Your task to perform on an android device: Open eBay Image 0: 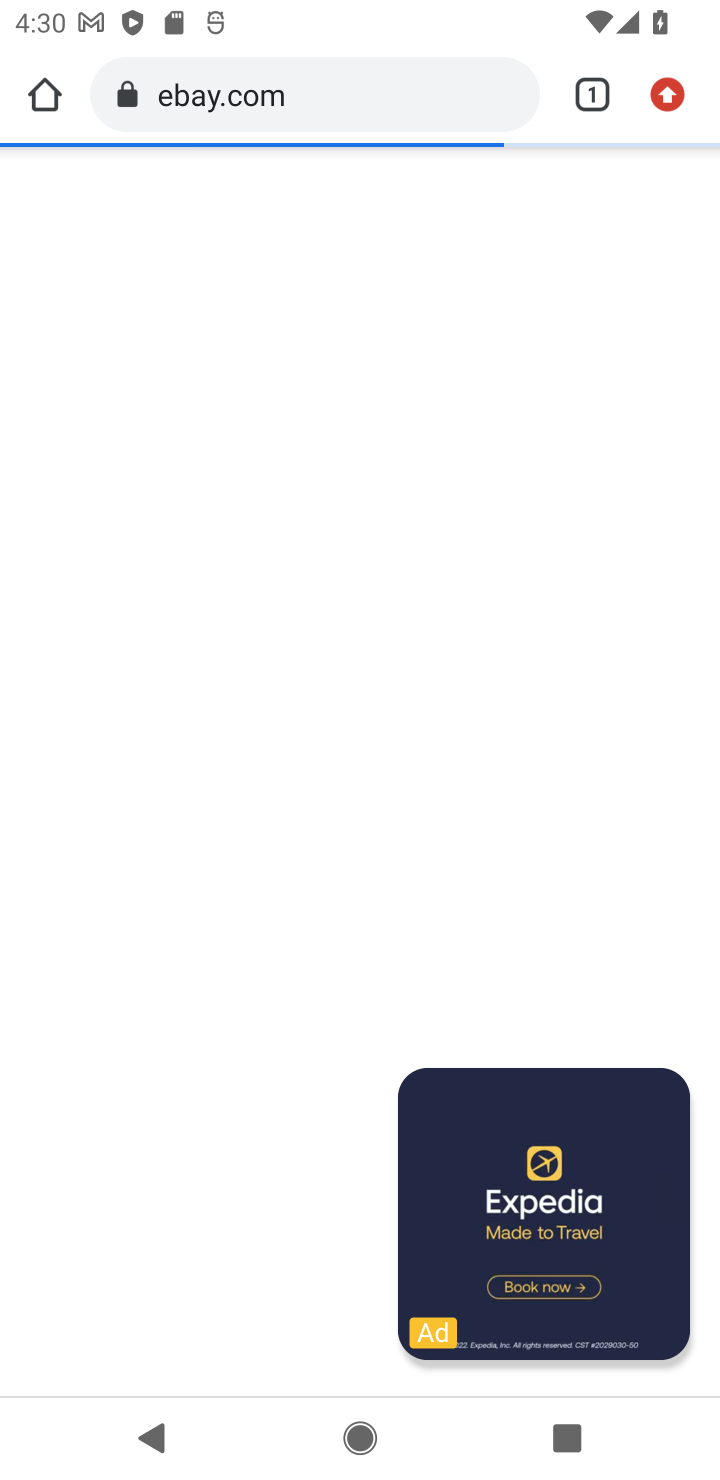
Step 0: click (560, 1134)
Your task to perform on an android device: Open eBay Image 1: 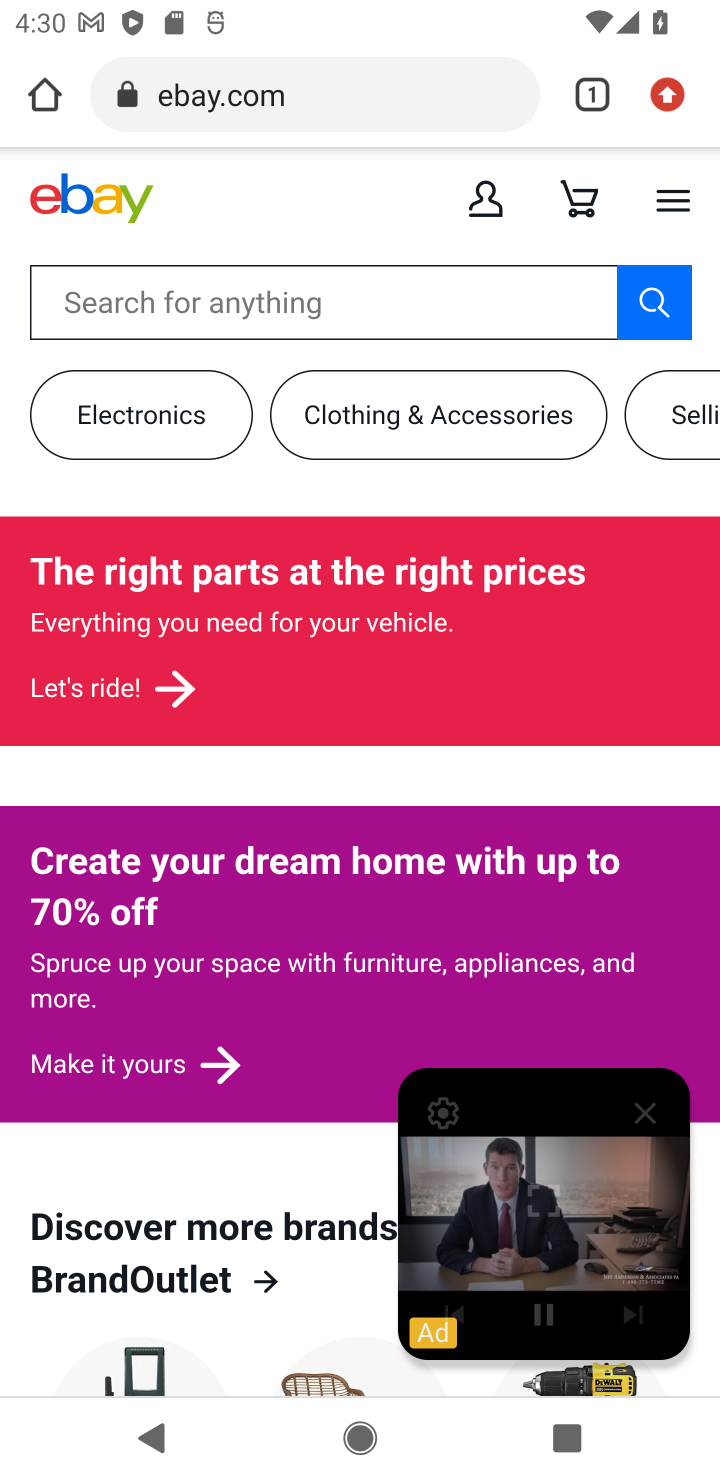
Step 1: click (654, 1126)
Your task to perform on an android device: Open eBay Image 2: 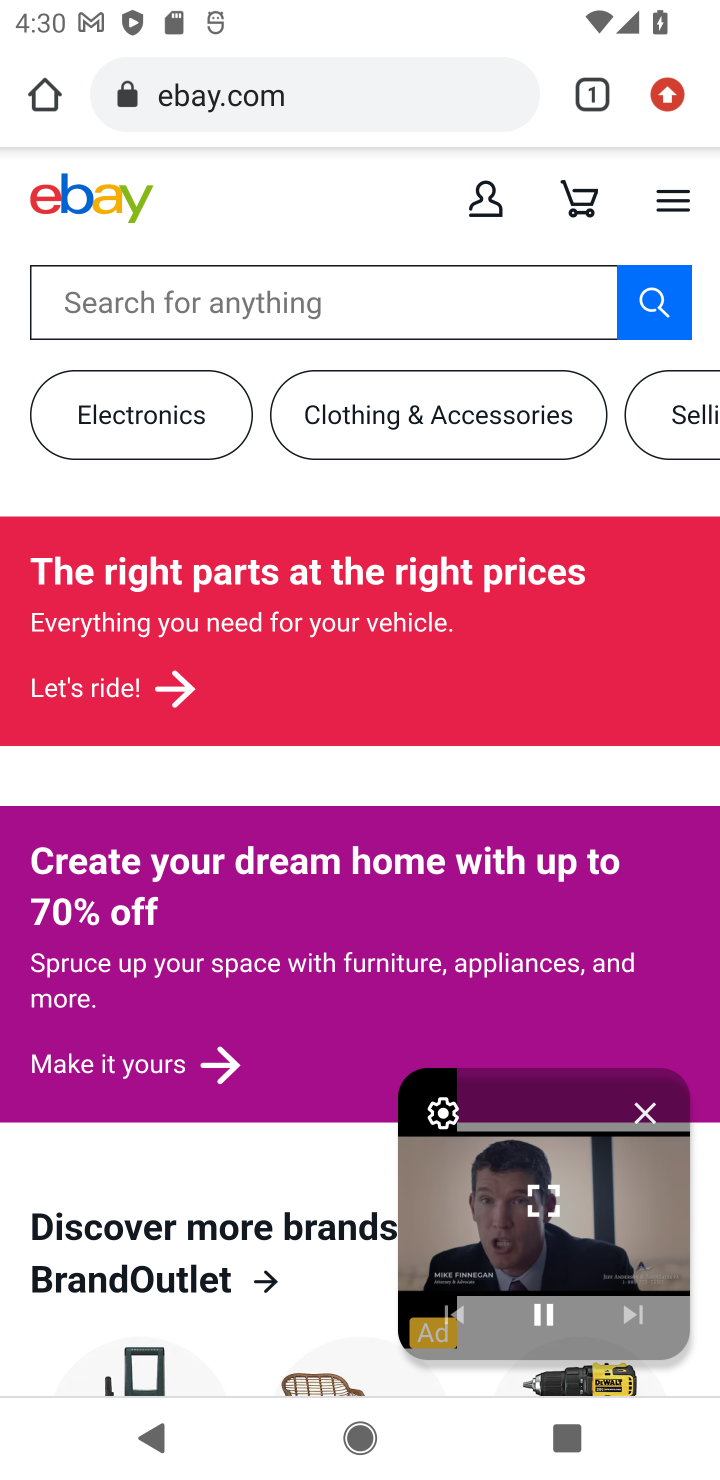
Step 2: click (652, 1122)
Your task to perform on an android device: Open eBay Image 3: 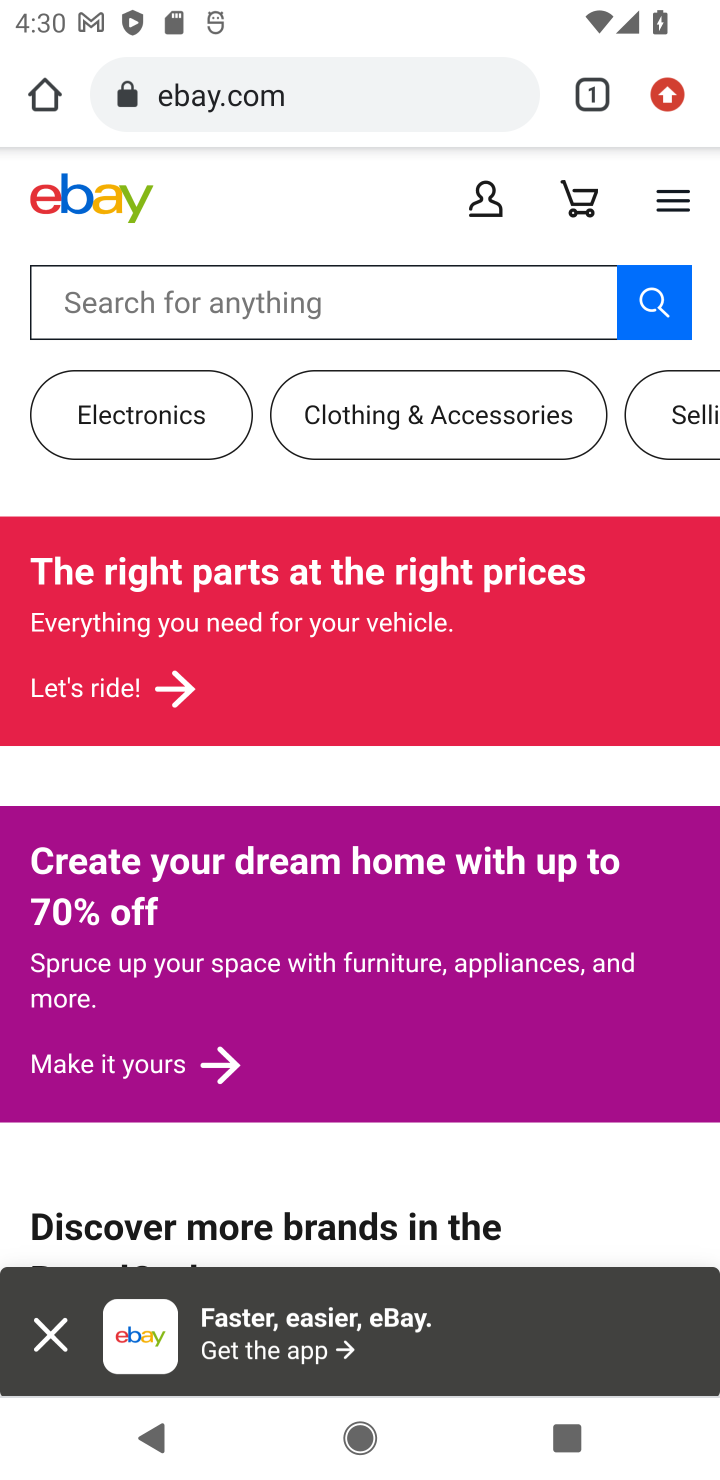
Step 3: task complete